Your task to perform on an android device: open chrome and create a bookmark for the current page Image 0: 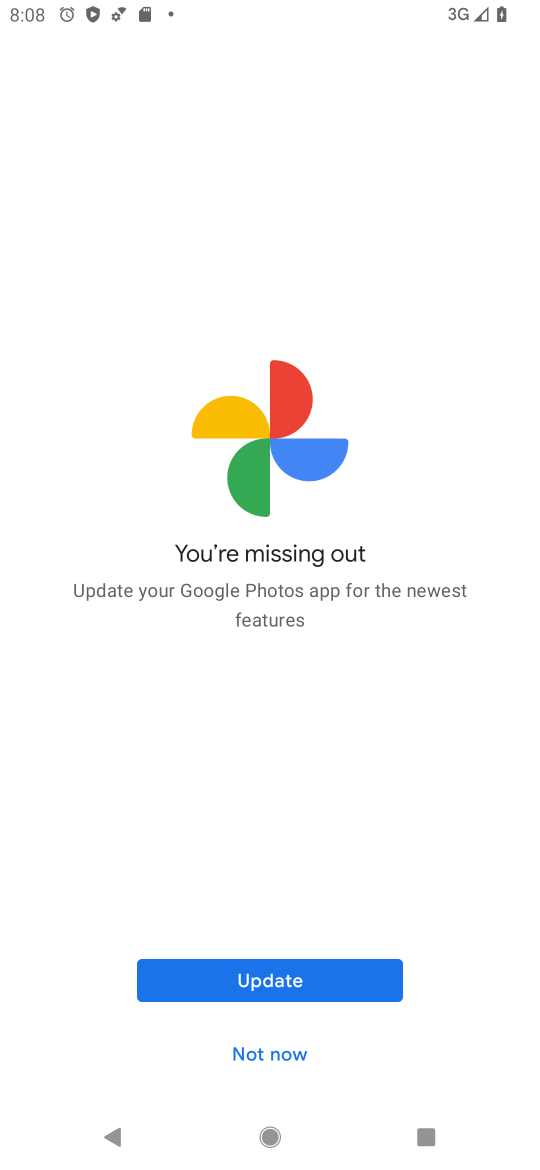
Step 0: press back button
Your task to perform on an android device: open chrome and create a bookmark for the current page Image 1: 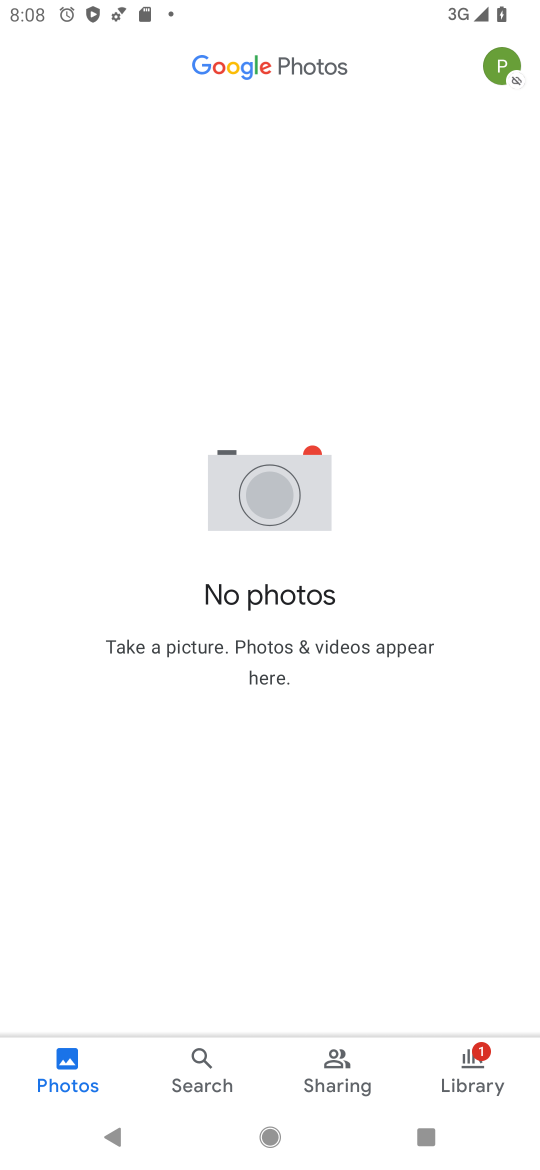
Step 1: press back button
Your task to perform on an android device: open chrome and create a bookmark for the current page Image 2: 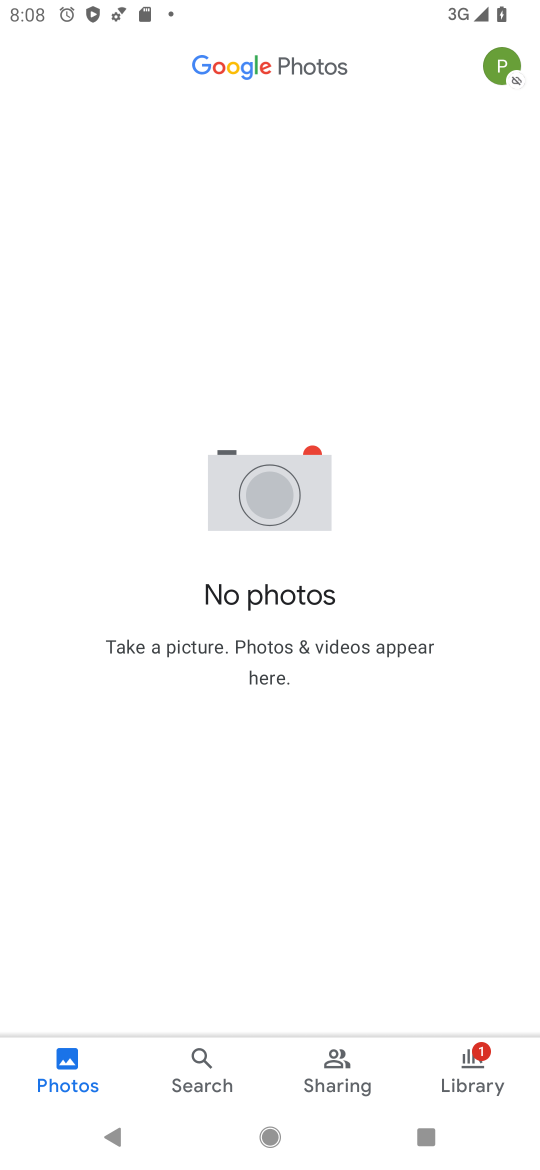
Step 2: press back button
Your task to perform on an android device: open chrome and create a bookmark for the current page Image 3: 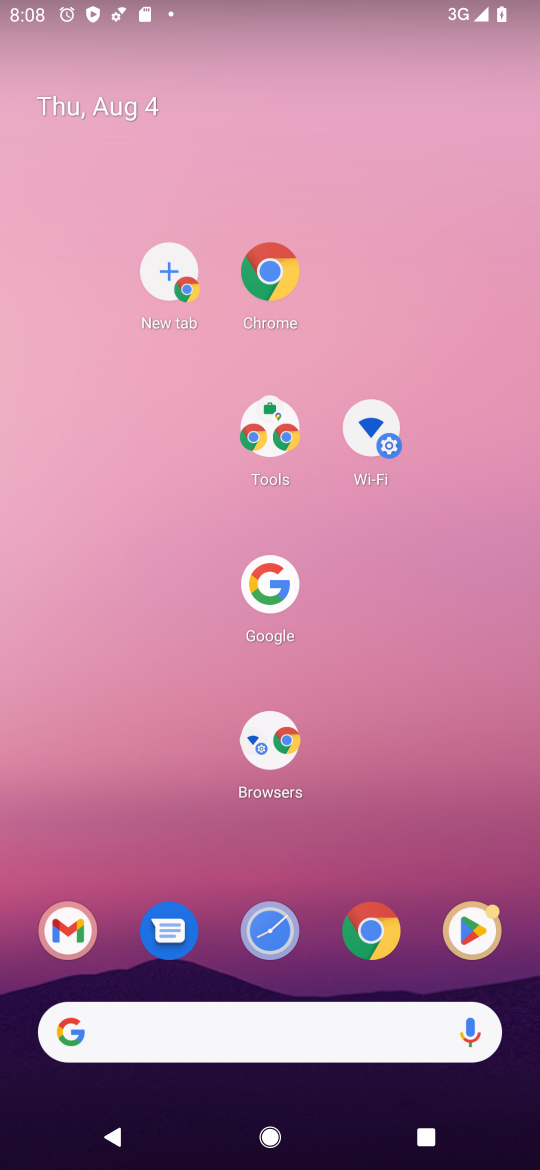
Step 3: press back button
Your task to perform on an android device: open chrome and create a bookmark for the current page Image 4: 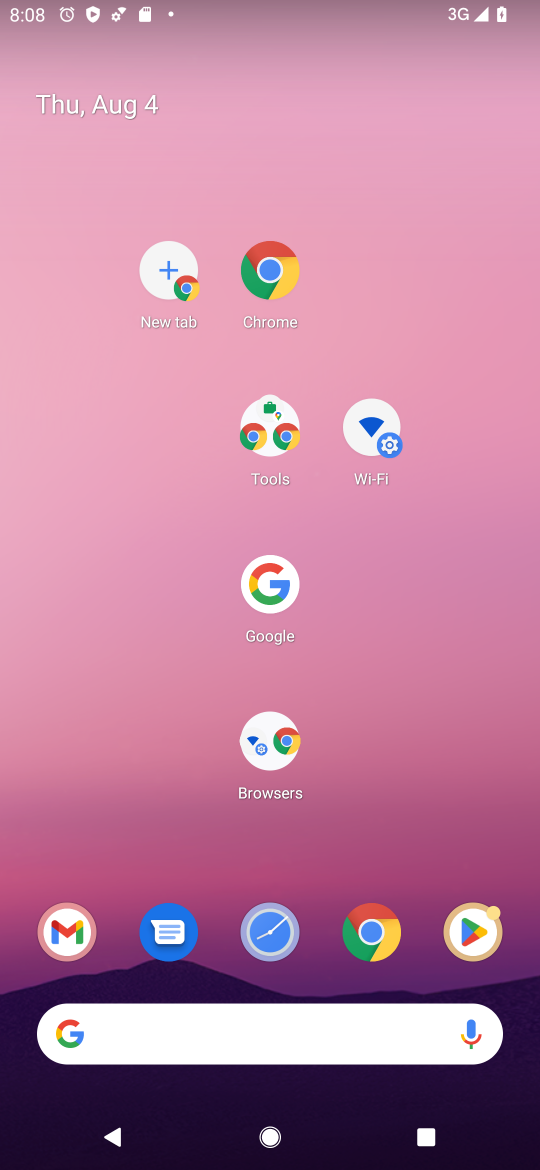
Step 4: drag from (347, 415) to (362, 283)
Your task to perform on an android device: open chrome and create a bookmark for the current page Image 5: 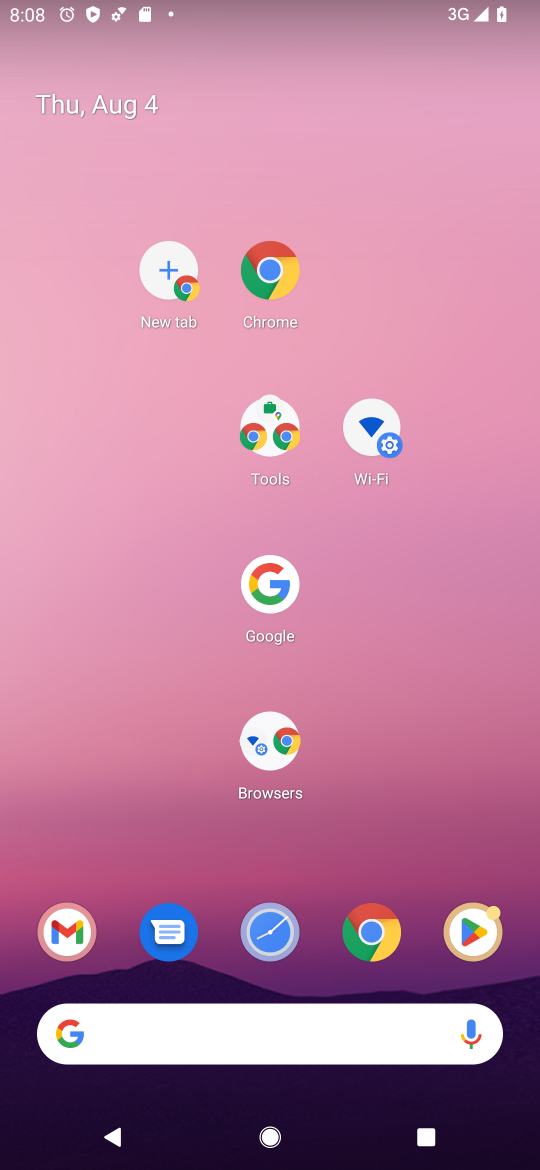
Step 5: drag from (331, 354) to (242, 134)
Your task to perform on an android device: open chrome and create a bookmark for the current page Image 6: 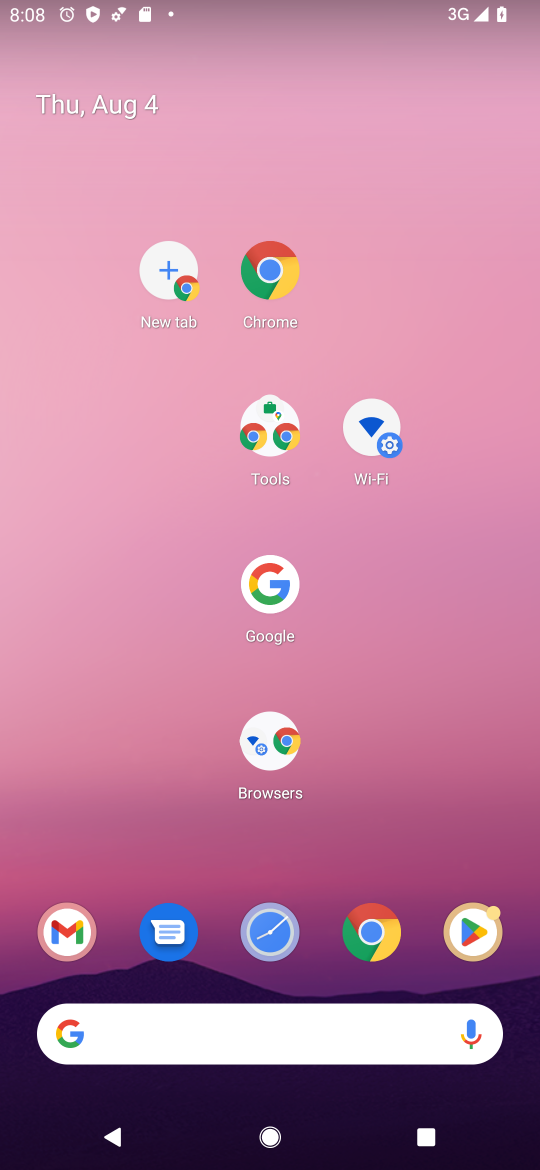
Step 6: drag from (328, 591) to (333, 460)
Your task to perform on an android device: open chrome and create a bookmark for the current page Image 7: 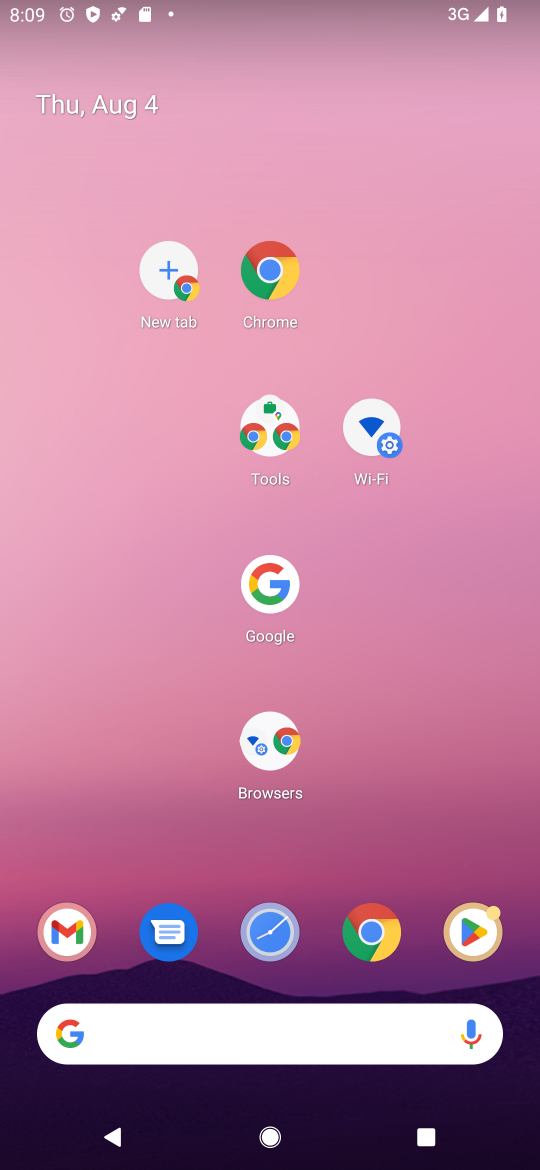
Step 7: drag from (324, 879) to (278, 313)
Your task to perform on an android device: open chrome and create a bookmark for the current page Image 8: 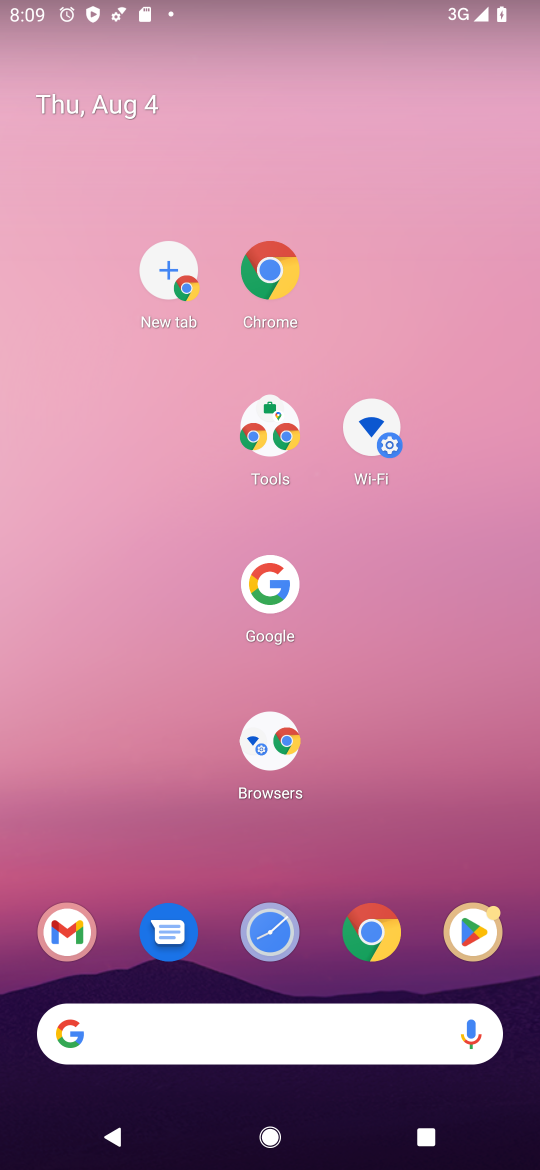
Step 8: drag from (278, 477) to (298, 312)
Your task to perform on an android device: open chrome and create a bookmark for the current page Image 9: 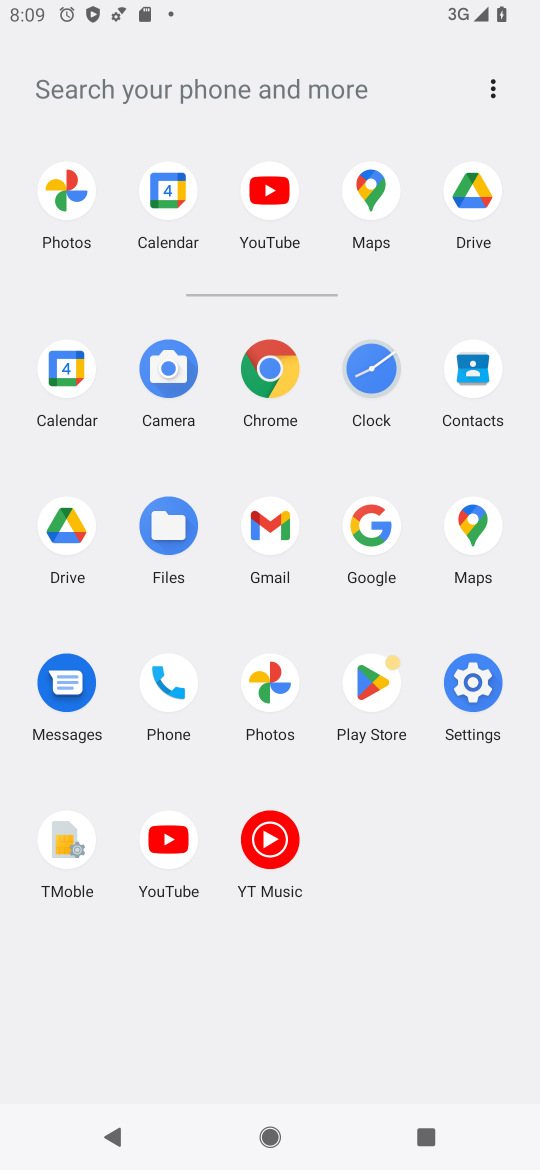
Step 9: click (265, 360)
Your task to perform on an android device: open chrome and create a bookmark for the current page Image 10: 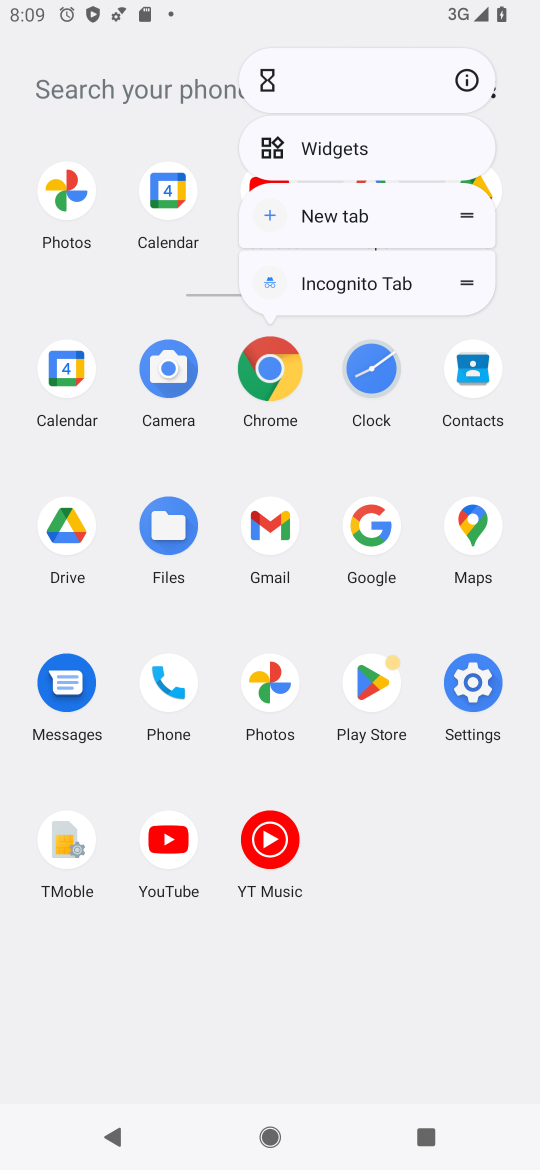
Step 10: click (263, 363)
Your task to perform on an android device: open chrome and create a bookmark for the current page Image 11: 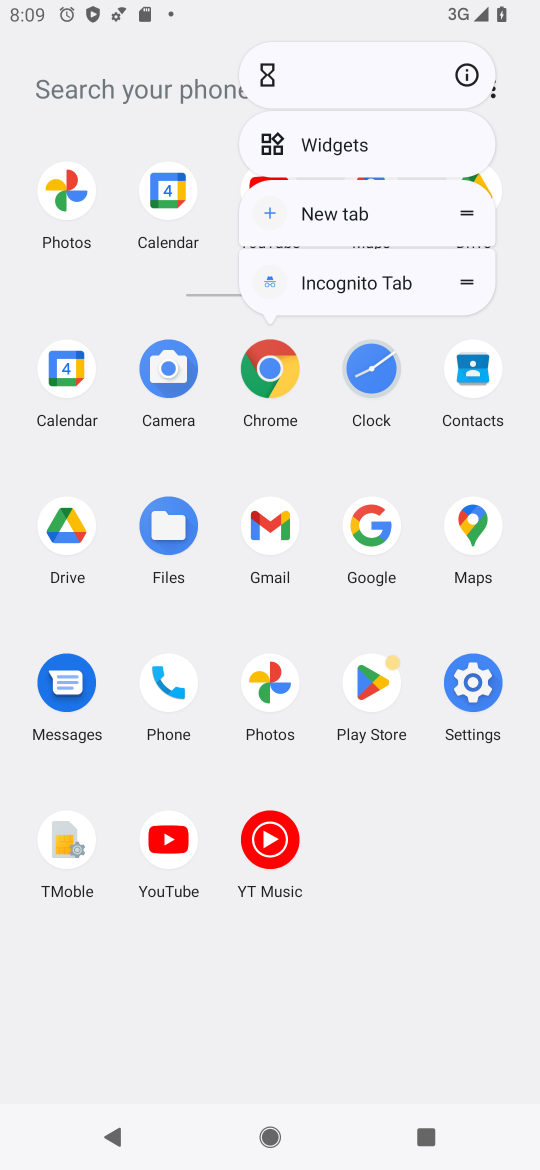
Step 11: click (267, 361)
Your task to perform on an android device: open chrome and create a bookmark for the current page Image 12: 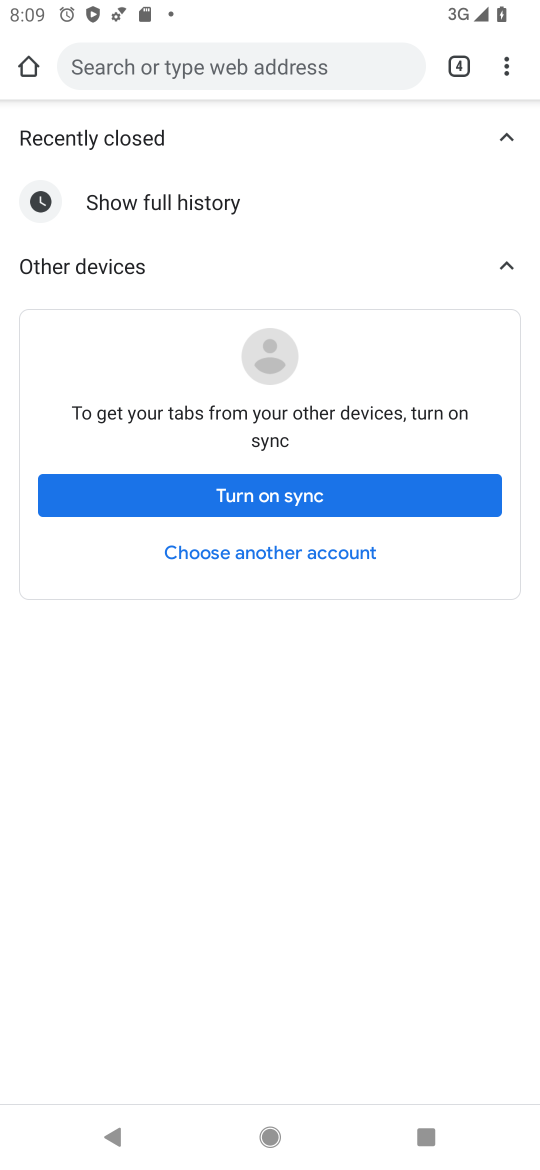
Step 12: task complete